Your task to perform on an android device: find snoozed emails in the gmail app Image 0: 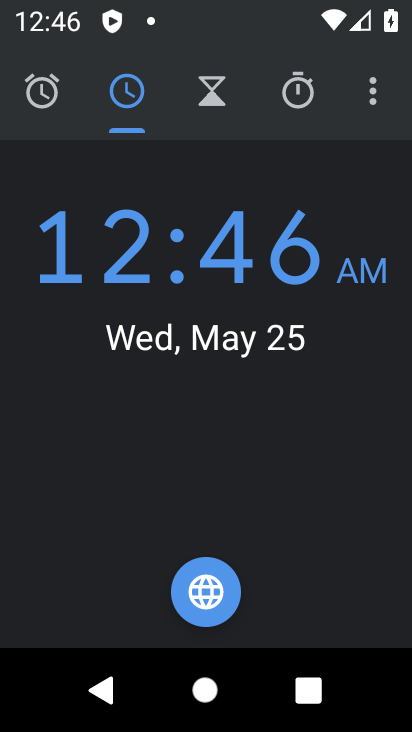
Step 0: press home button
Your task to perform on an android device: find snoozed emails in the gmail app Image 1: 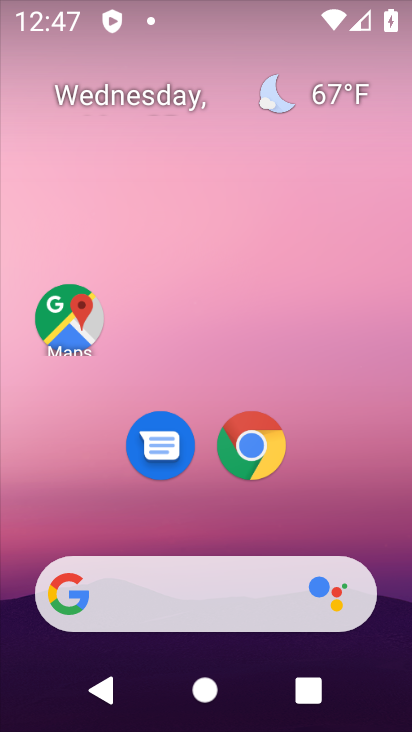
Step 1: drag from (388, 577) to (323, 114)
Your task to perform on an android device: find snoozed emails in the gmail app Image 2: 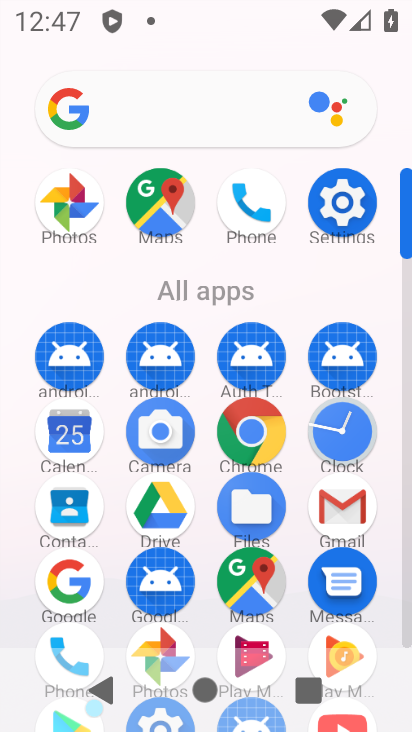
Step 2: click (350, 513)
Your task to perform on an android device: find snoozed emails in the gmail app Image 3: 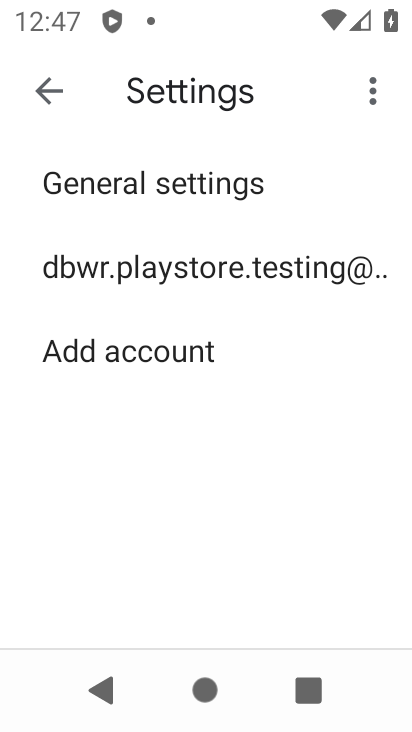
Step 3: click (291, 263)
Your task to perform on an android device: find snoozed emails in the gmail app Image 4: 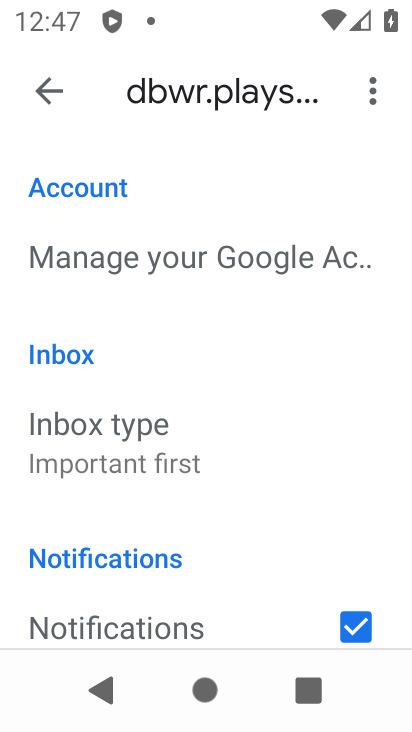
Step 4: click (57, 64)
Your task to perform on an android device: find snoozed emails in the gmail app Image 5: 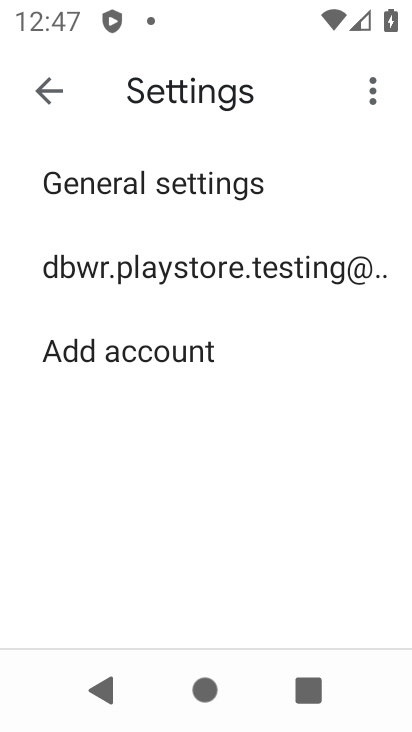
Step 5: click (57, 64)
Your task to perform on an android device: find snoozed emails in the gmail app Image 6: 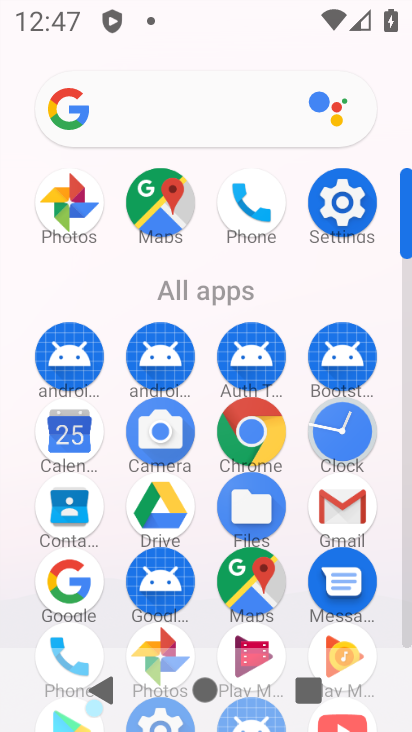
Step 6: click (350, 515)
Your task to perform on an android device: find snoozed emails in the gmail app Image 7: 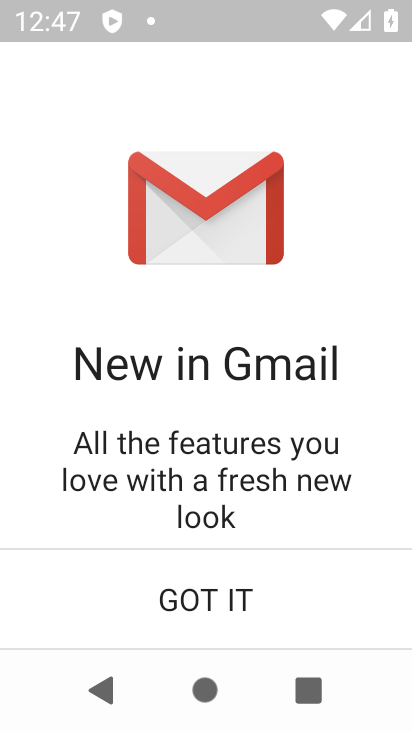
Step 7: click (226, 600)
Your task to perform on an android device: find snoozed emails in the gmail app Image 8: 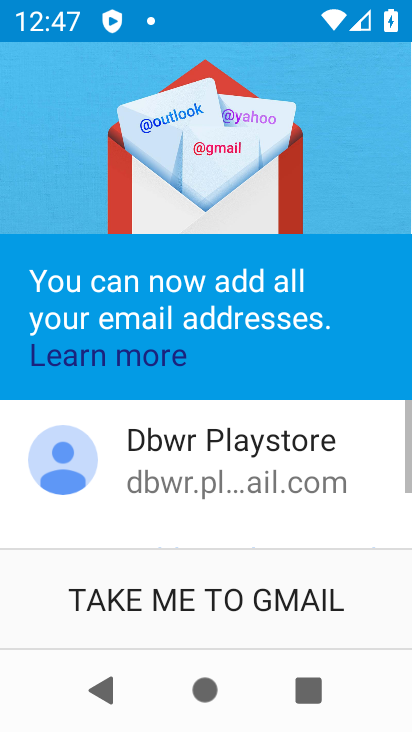
Step 8: click (235, 602)
Your task to perform on an android device: find snoozed emails in the gmail app Image 9: 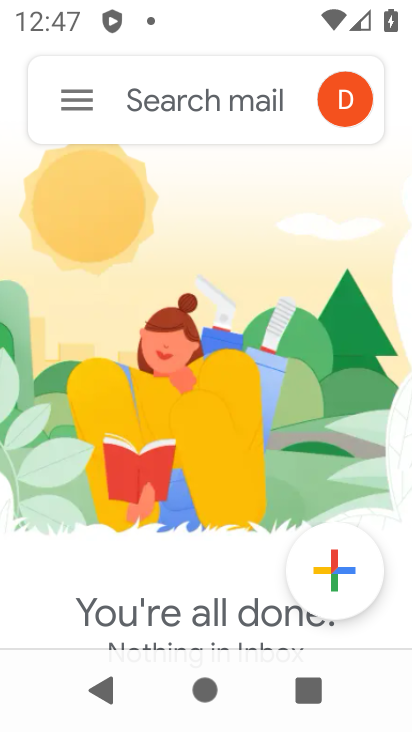
Step 9: click (87, 101)
Your task to perform on an android device: find snoozed emails in the gmail app Image 10: 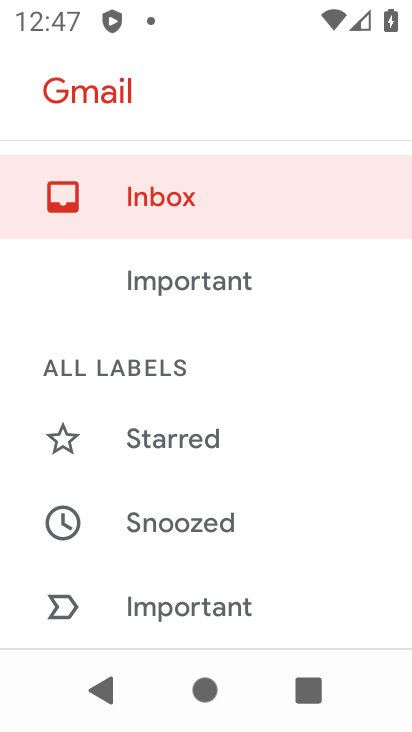
Step 10: drag from (191, 629) to (166, 123)
Your task to perform on an android device: find snoozed emails in the gmail app Image 11: 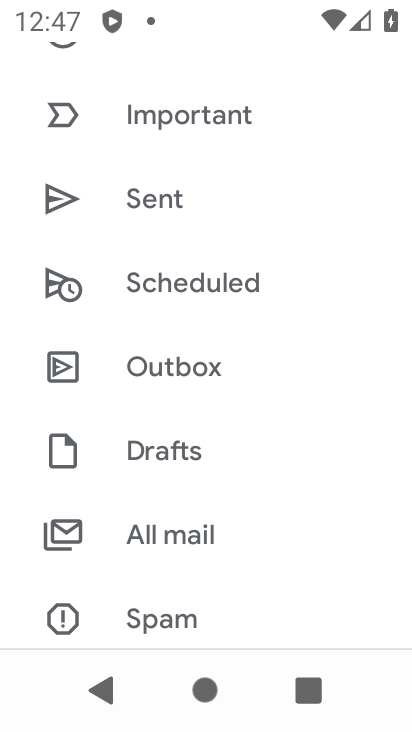
Step 11: drag from (166, 137) to (179, 360)
Your task to perform on an android device: find snoozed emails in the gmail app Image 12: 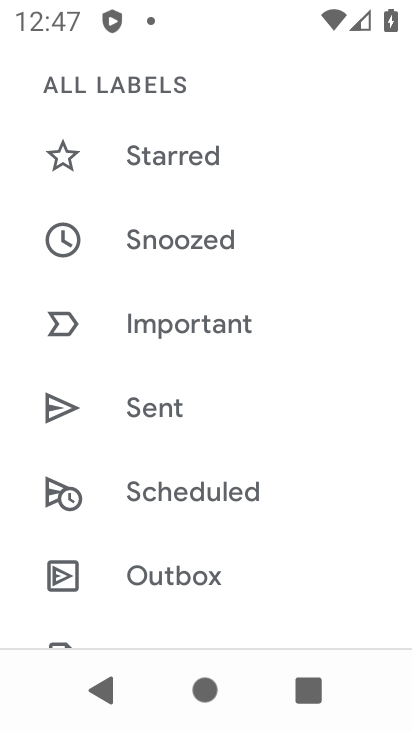
Step 12: click (197, 229)
Your task to perform on an android device: find snoozed emails in the gmail app Image 13: 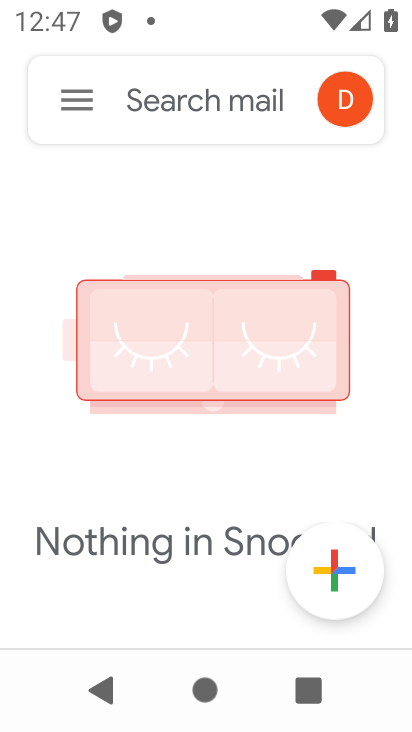
Step 13: task complete